Your task to perform on an android device: open app "Adobe Express: Graphic Design" (install if not already installed), go to login, and select forgot password Image 0: 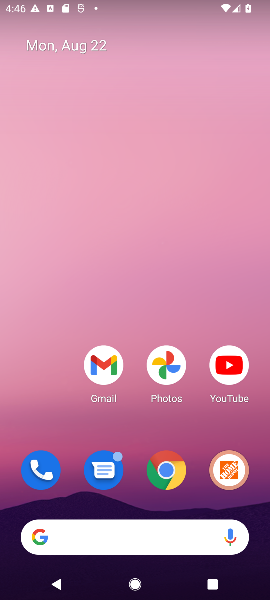
Step 0: drag from (131, 495) to (126, 156)
Your task to perform on an android device: open app "Adobe Express: Graphic Design" (install if not already installed), go to login, and select forgot password Image 1: 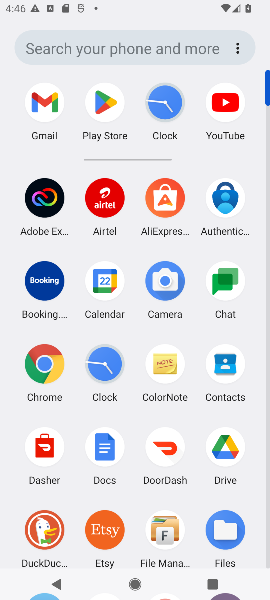
Step 1: click (91, 97)
Your task to perform on an android device: open app "Adobe Express: Graphic Design" (install if not already installed), go to login, and select forgot password Image 2: 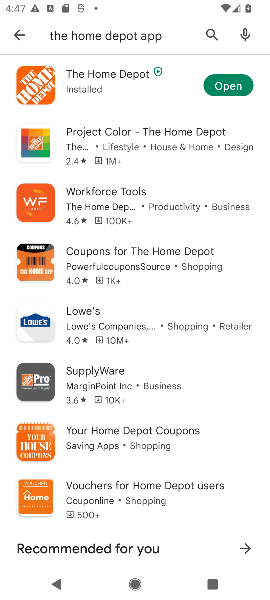
Step 2: click (11, 35)
Your task to perform on an android device: open app "Adobe Express: Graphic Design" (install if not already installed), go to login, and select forgot password Image 3: 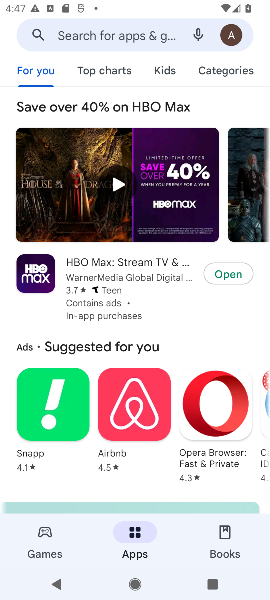
Step 3: click (115, 36)
Your task to perform on an android device: open app "Adobe Express: Graphic Design" (install if not already installed), go to login, and select forgot password Image 4: 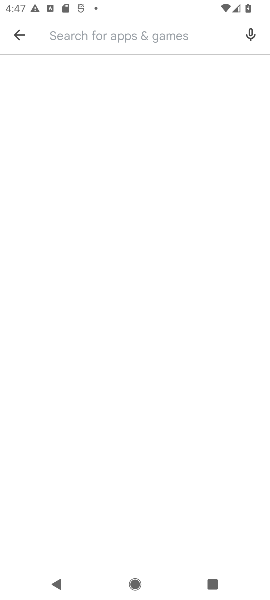
Step 4: click (110, 28)
Your task to perform on an android device: open app "Adobe Express: Graphic Design" (install if not already installed), go to login, and select forgot password Image 5: 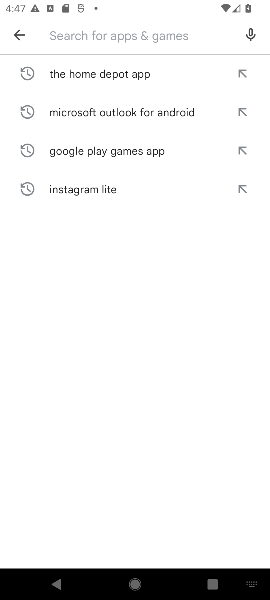
Step 5: type "Adobe Express: Graphic Design "
Your task to perform on an android device: open app "Adobe Express: Graphic Design" (install if not already installed), go to login, and select forgot password Image 6: 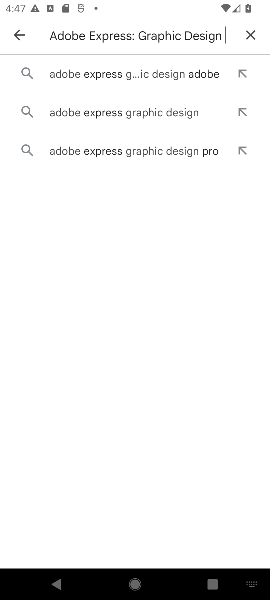
Step 6: click (93, 73)
Your task to perform on an android device: open app "Adobe Express: Graphic Design" (install if not already installed), go to login, and select forgot password Image 7: 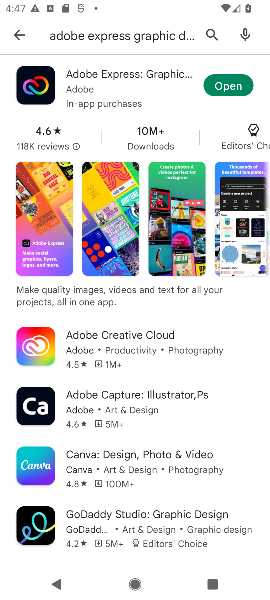
Step 7: click (219, 80)
Your task to perform on an android device: open app "Adobe Express: Graphic Design" (install if not already installed), go to login, and select forgot password Image 8: 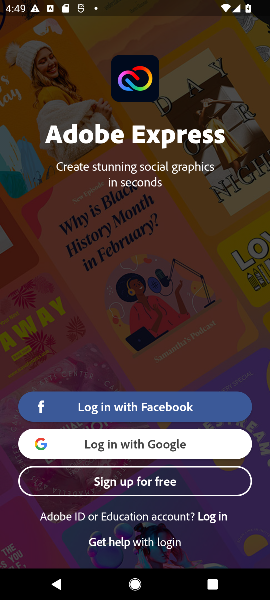
Step 8: task complete